Your task to perform on an android device: Open the Play Movies app and select the watchlist tab. Image 0: 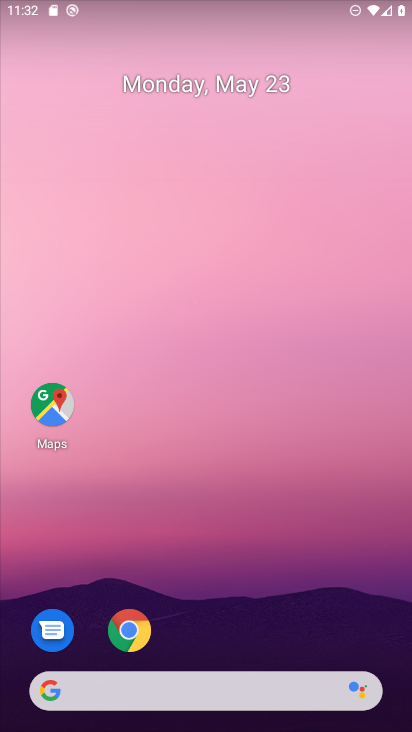
Step 0: drag from (228, 653) to (315, 116)
Your task to perform on an android device: Open the Play Movies app and select the watchlist tab. Image 1: 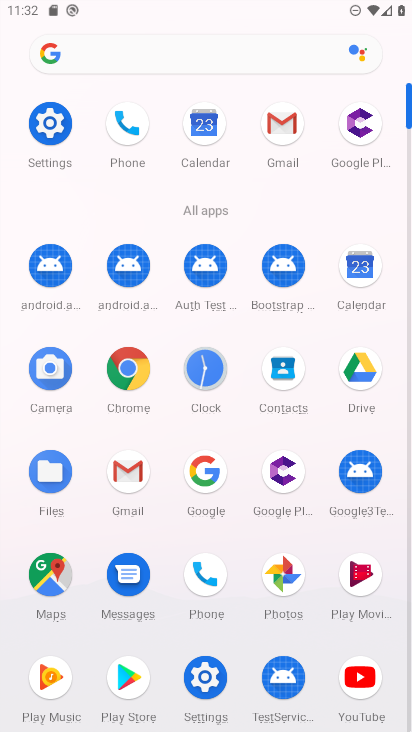
Step 1: drag from (236, 689) to (301, 370)
Your task to perform on an android device: Open the Play Movies app and select the watchlist tab. Image 2: 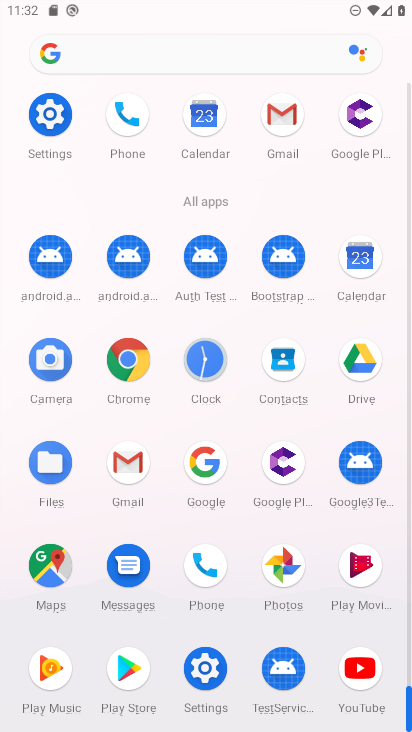
Step 2: click (362, 574)
Your task to perform on an android device: Open the Play Movies app and select the watchlist tab. Image 3: 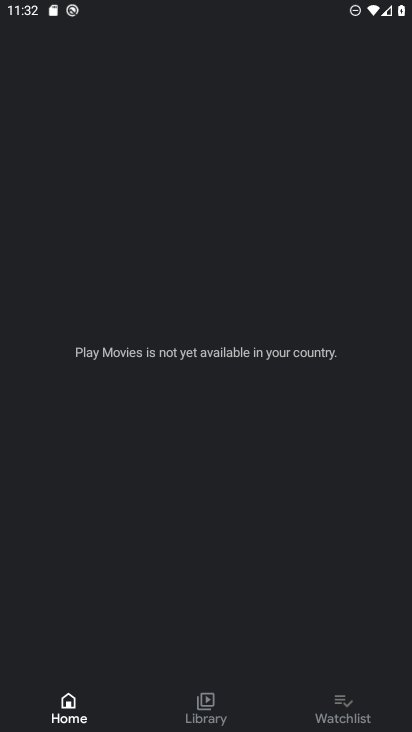
Step 3: click (361, 704)
Your task to perform on an android device: Open the Play Movies app and select the watchlist tab. Image 4: 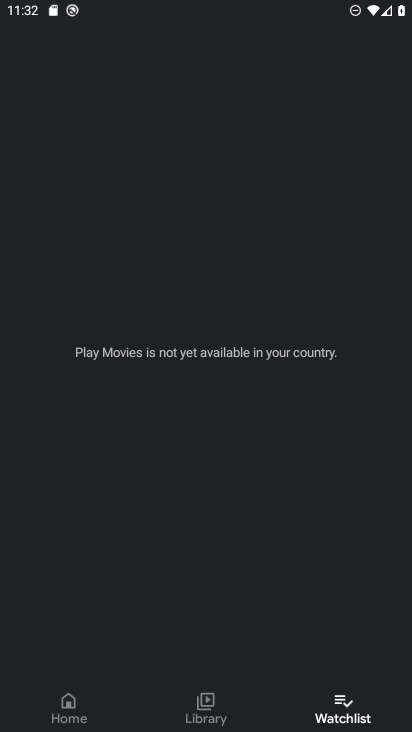
Step 4: task complete